Your task to perform on an android device: Open internet settings Image 0: 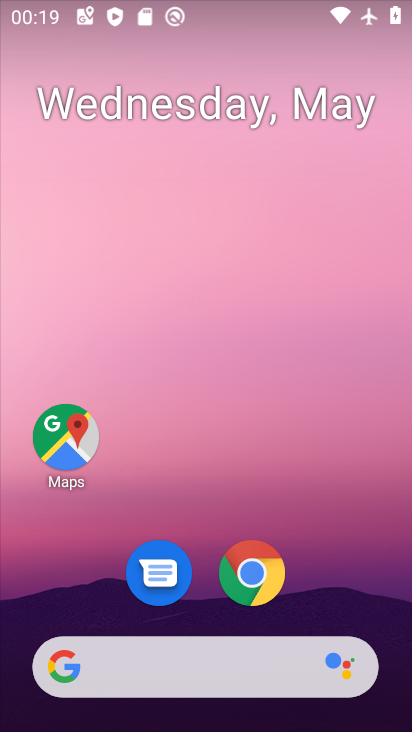
Step 0: drag from (351, 537) to (305, 244)
Your task to perform on an android device: Open internet settings Image 1: 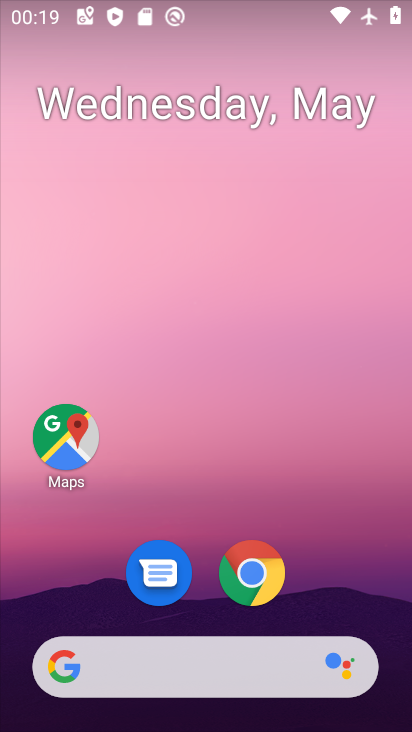
Step 1: drag from (351, 565) to (310, 230)
Your task to perform on an android device: Open internet settings Image 2: 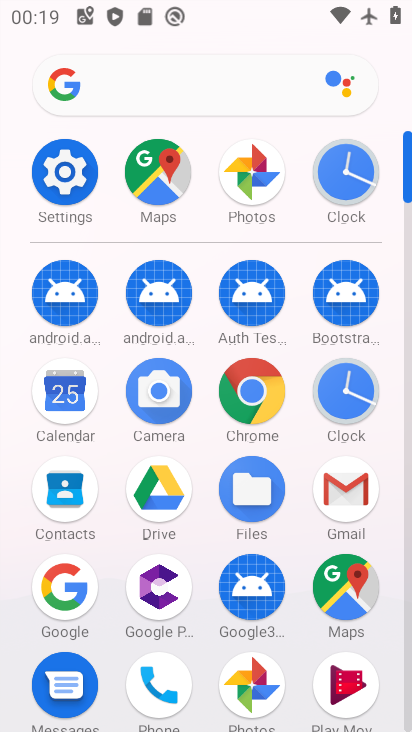
Step 2: click (85, 154)
Your task to perform on an android device: Open internet settings Image 3: 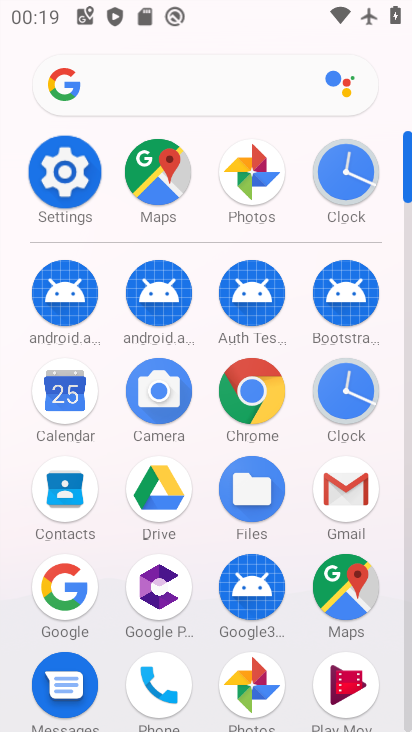
Step 3: click (77, 160)
Your task to perform on an android device: Open internet settings Image 4: 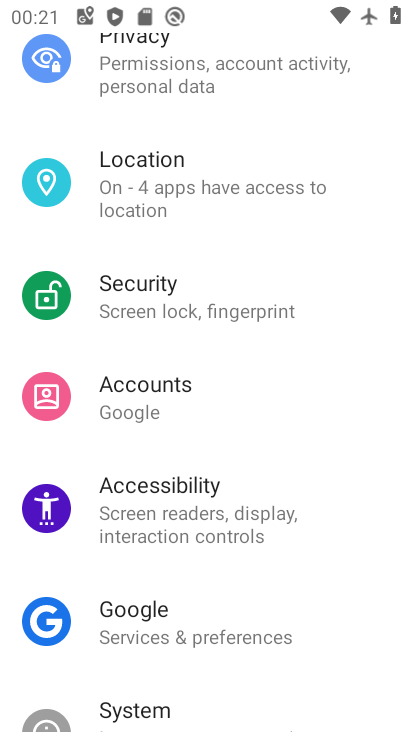
Step 4: drag from (254, 71) to (310, 525)
Your task to perform on an android device: Open internet settings Image 5: 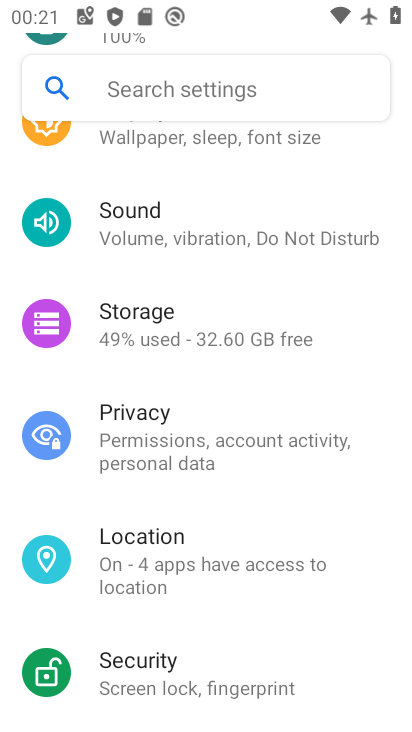
Step 5: drag from (200, 150) to (214, 516)
Your task to perform on an android device: Open internet settings Image 6: 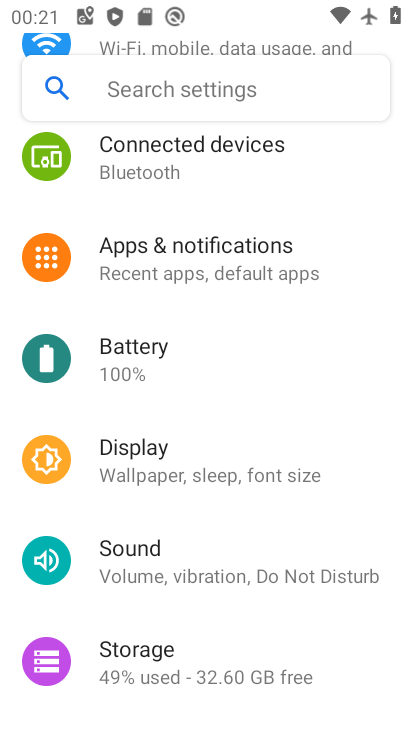
Step 6: drag from (150, 175) to (149, 584)
Your task to perform on an android device: Open internet settings Image 7: 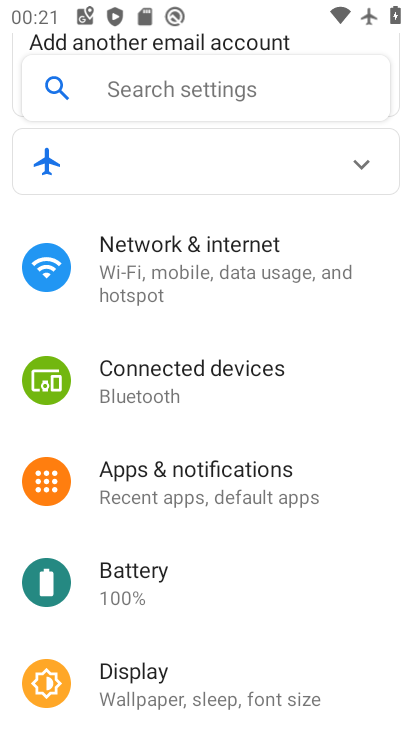
Step 7: click (180, 261)
Your task to perform on an android device: Open internet settings Image 8: 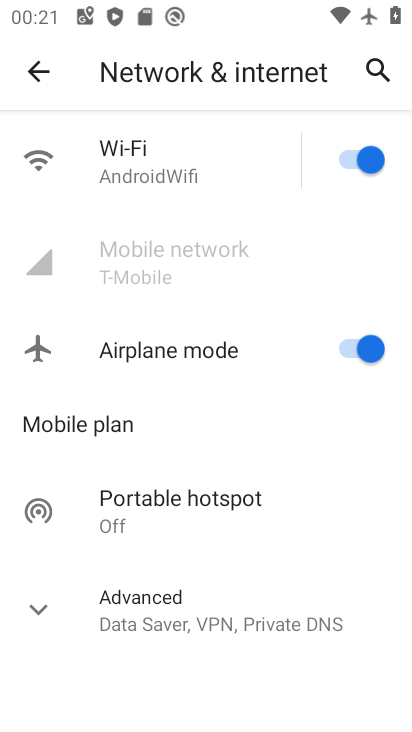
Step 8: task complete